Your task to perform on an android device: Go to ESPN.com Image 0: 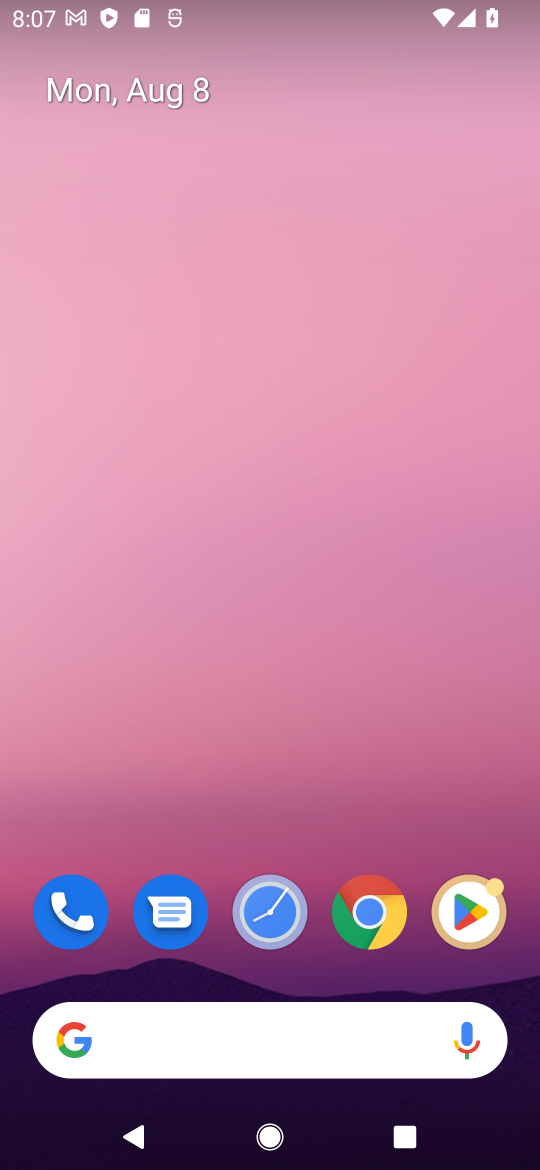
Step 0: drag from (389, 795) to (247, 6)
Your task to perform on an android device: Go to ESPN.com Image 1: 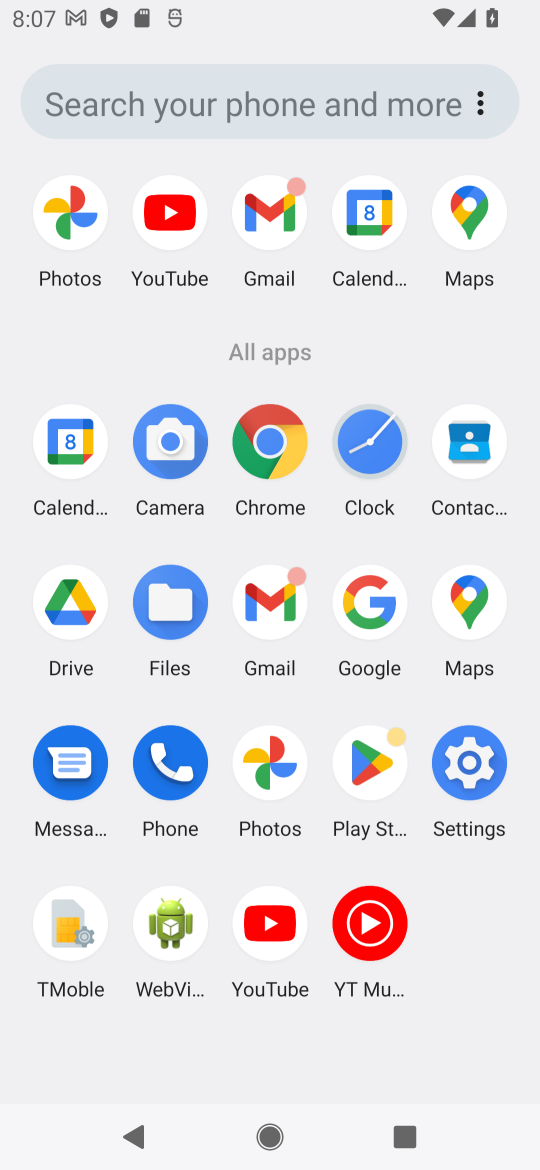
Step 1: click (377, 599)
Your task to perform on an android device: Go to ESPN.com Image 2: 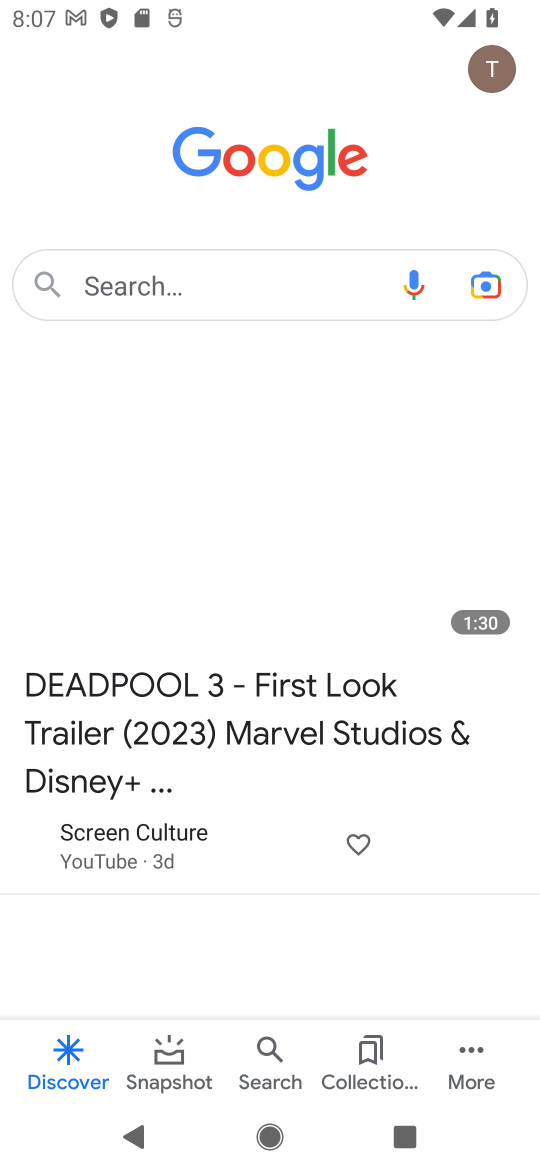
Step 2: click (126, 269)
Your task to perform on an android device: Go to ESPN.com Image 3: 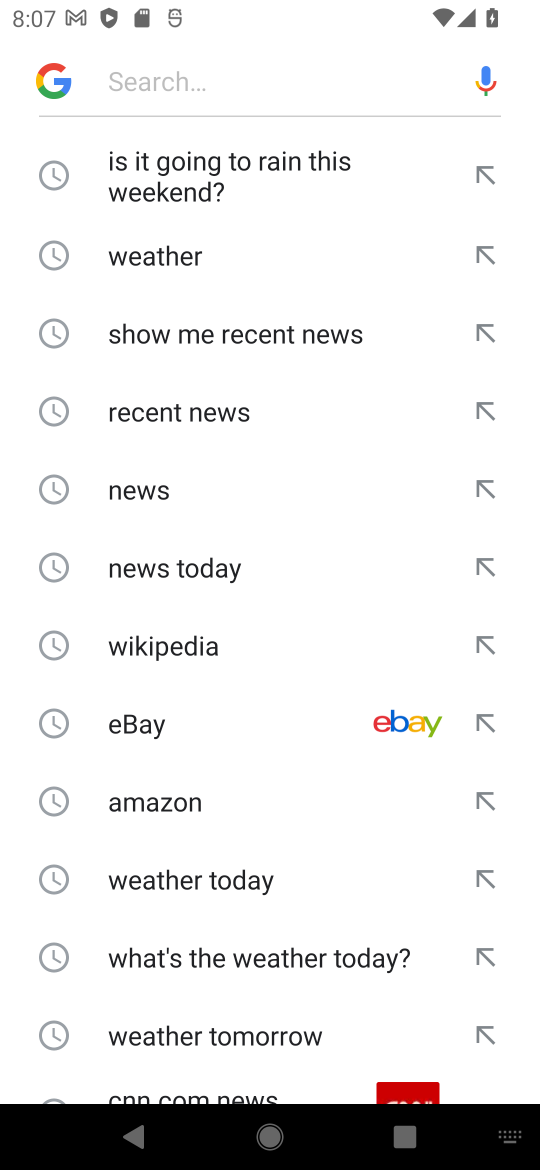
Step 3: type "ESPN.com"
Your task to perform on an android device: Go to ESPN.com Image 4: 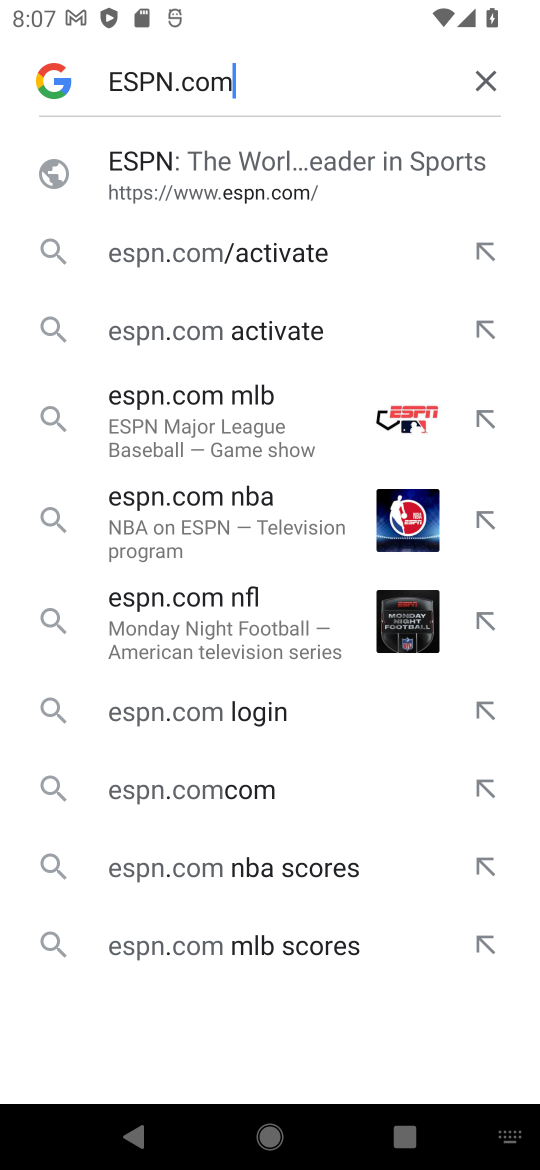
Step 4: click (200, 165)
Your task to perform on an android device: Go to ESPN.com Image 5: 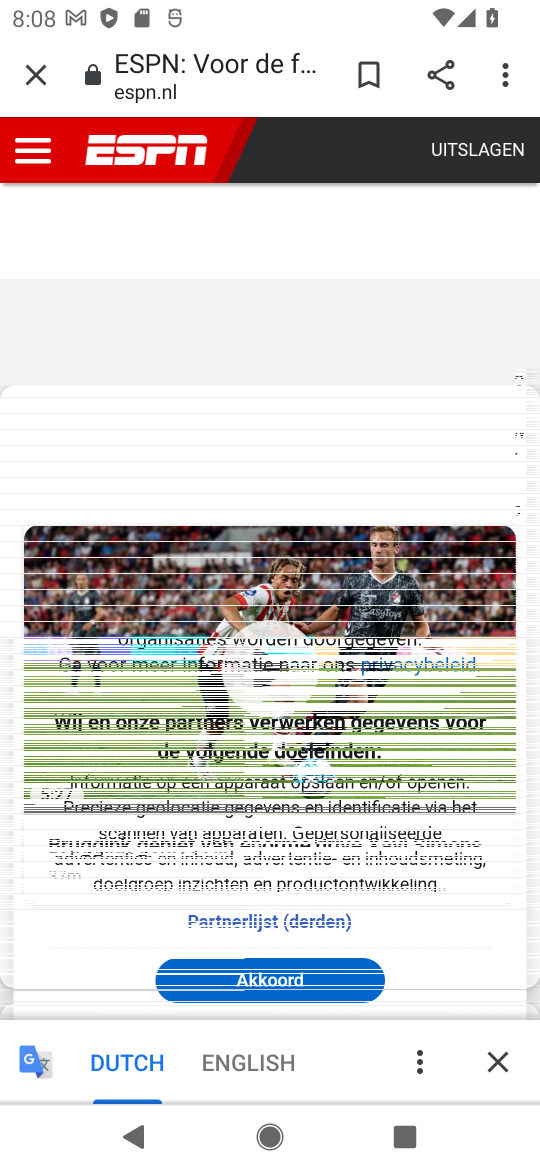
Step 5: task complete